Your task to perform on an android device: Go to Reddit.com Image 0: 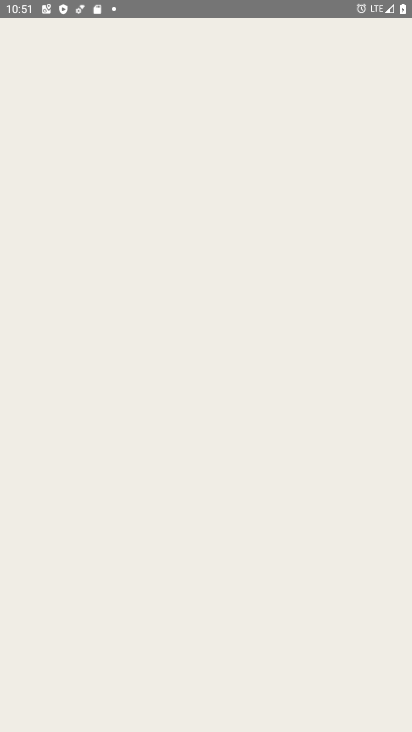
Step 0: drag from (255, 595) to (284, 153)
Your task to perform on an android device: Go to Reddit.com Image 1: 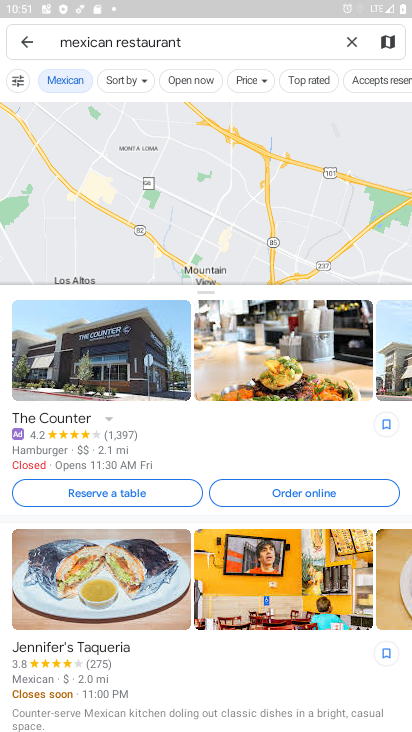
Step 1: press home button
Your task to perform on an android device: Go to Reddit.com Image 2: 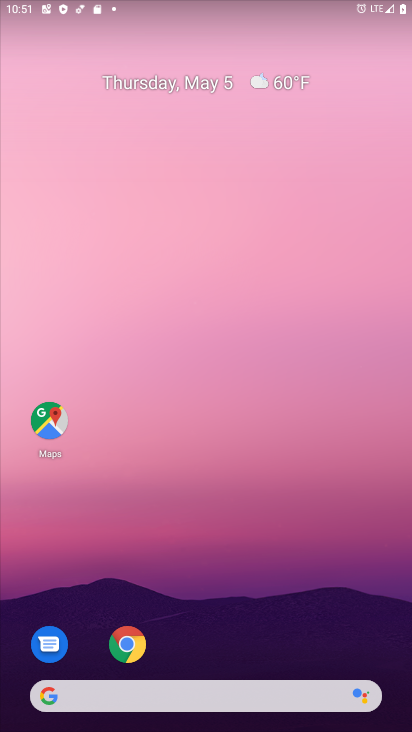
Step 2: click (139, 655)
Your task to perform on an android device: Go to Reddit.com Image 3: 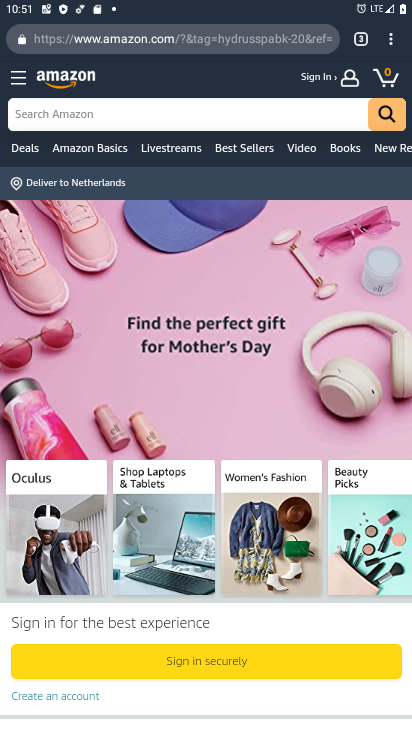
Step 3: click (135, 46)
Your task to perform on an android device: Go to Reddit.com Image 4: 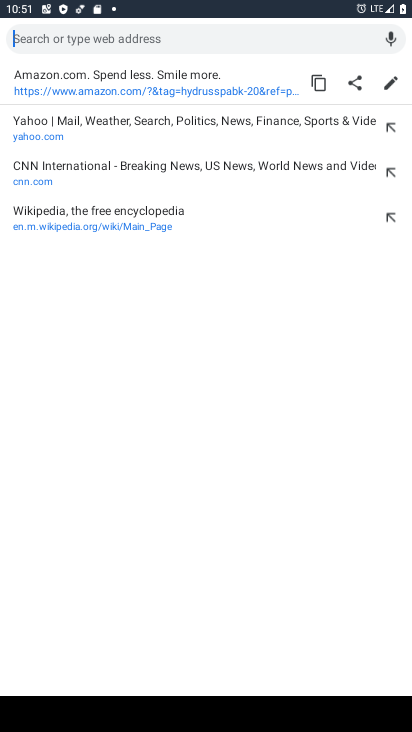
Step 4: type "reddit.com"
Your task to perform on an android device: Go to Reddit.com Image 5: 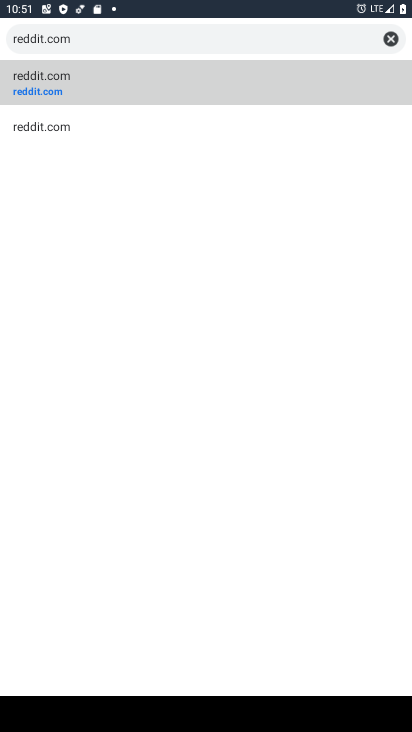
Step 5: click (52, 93)
Your task to perform on an android device: Go to Reddit.com Image 6: 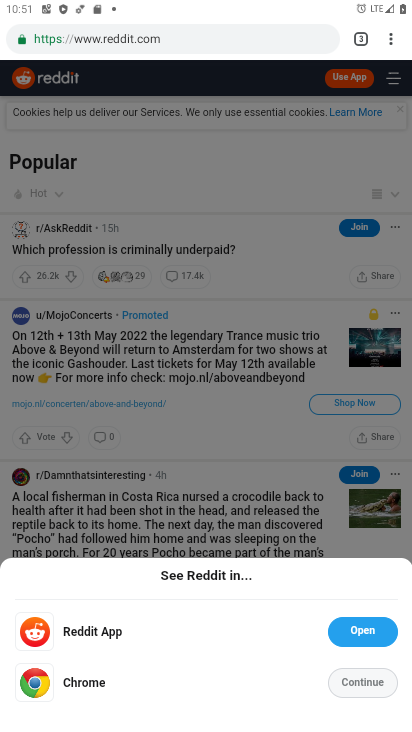
Step 6: task complete